Your task to perform on an android device: Open privacy settings Image 0: 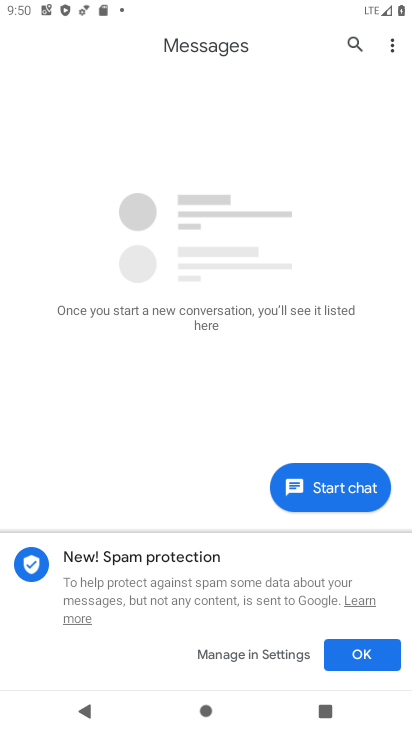
Step 0: press home button
Your task to perform on an android device: Open privacy settings Image 1: 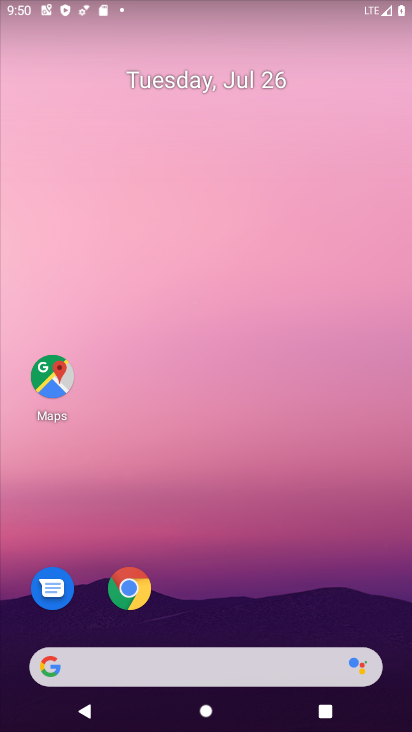
Step 1: drag from (210, 676) to (336, 34)
Your task to perform on an android device: Open privacy settings Image 2: 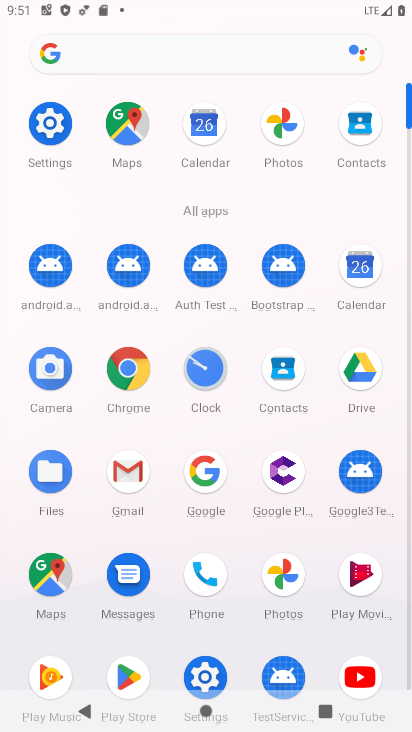
Step 2: click (49, 119)
Your task to perform on an android device: Open privacy settings Image 3: 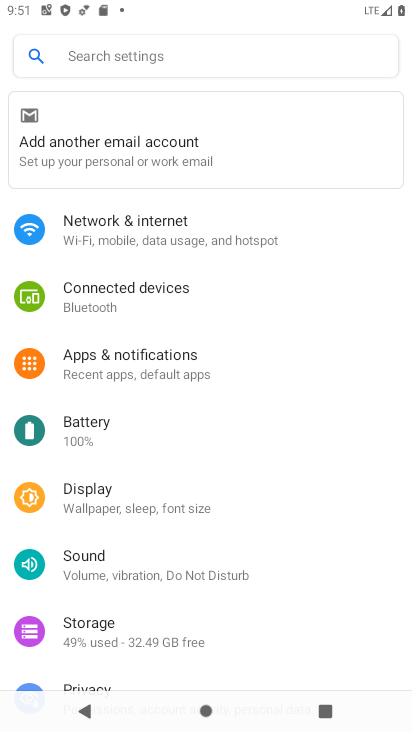
Step 3: drag from (117, 540) to (154, 444)
Your task to perform on an android device: Open privacy settings Image 4: 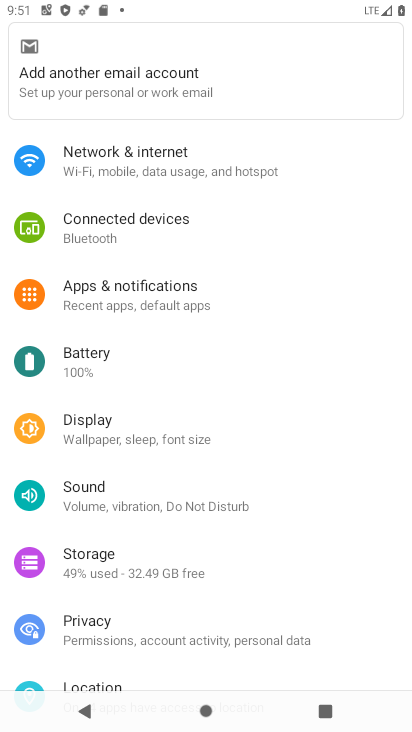
Step 4: click (124, 631)
Your task to perform on an android device: Open privacy settings Image 5: 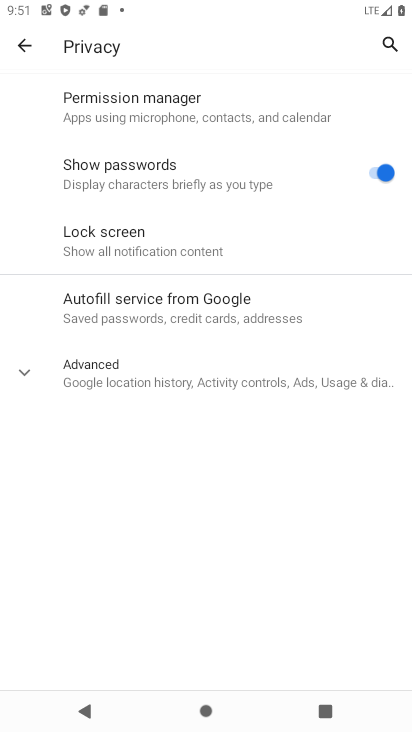
Step 5: task complete